Your task to perform on an android device: Search for Mexican restaurants on Maps Image 0: 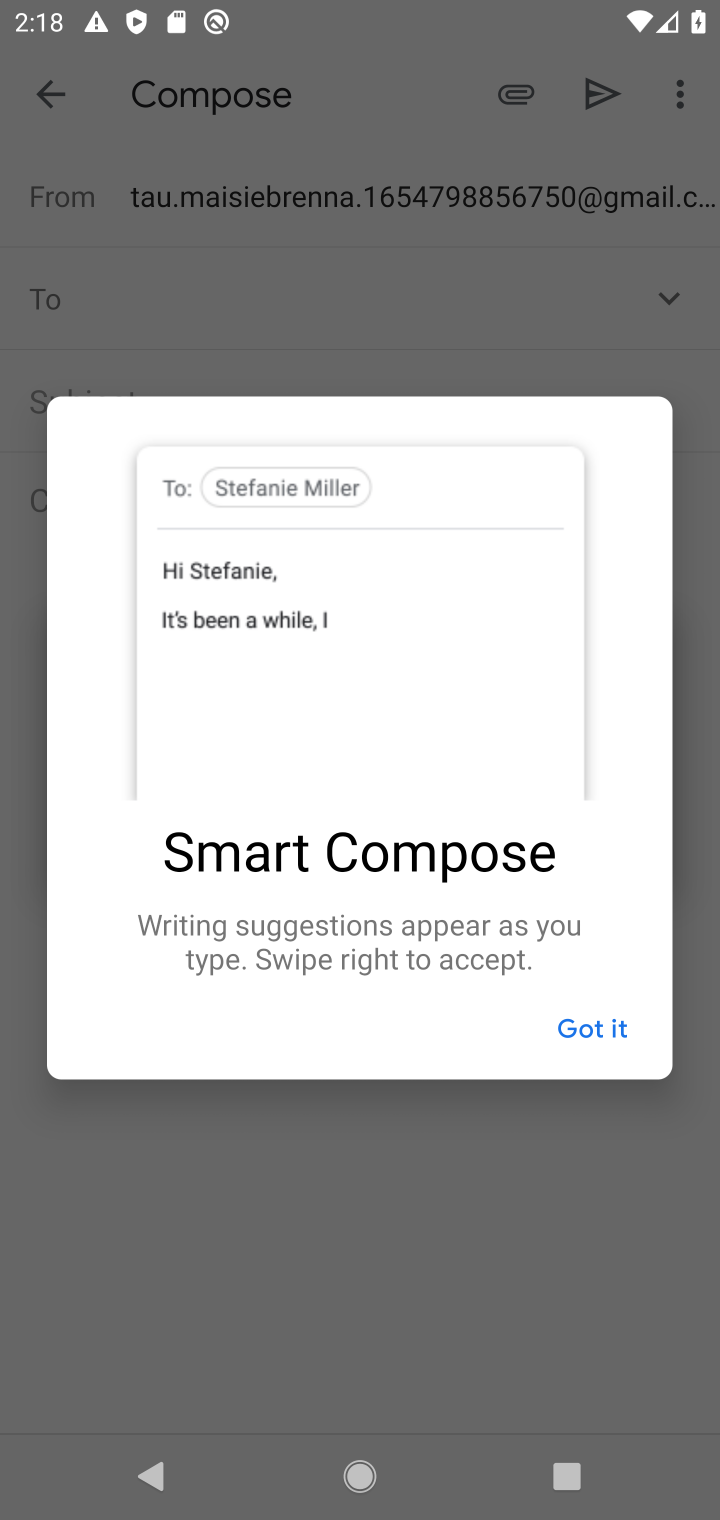
Step 0: press home button
Your task to perform on an android device: Search for Mexican restaurants on Maps Image 1: 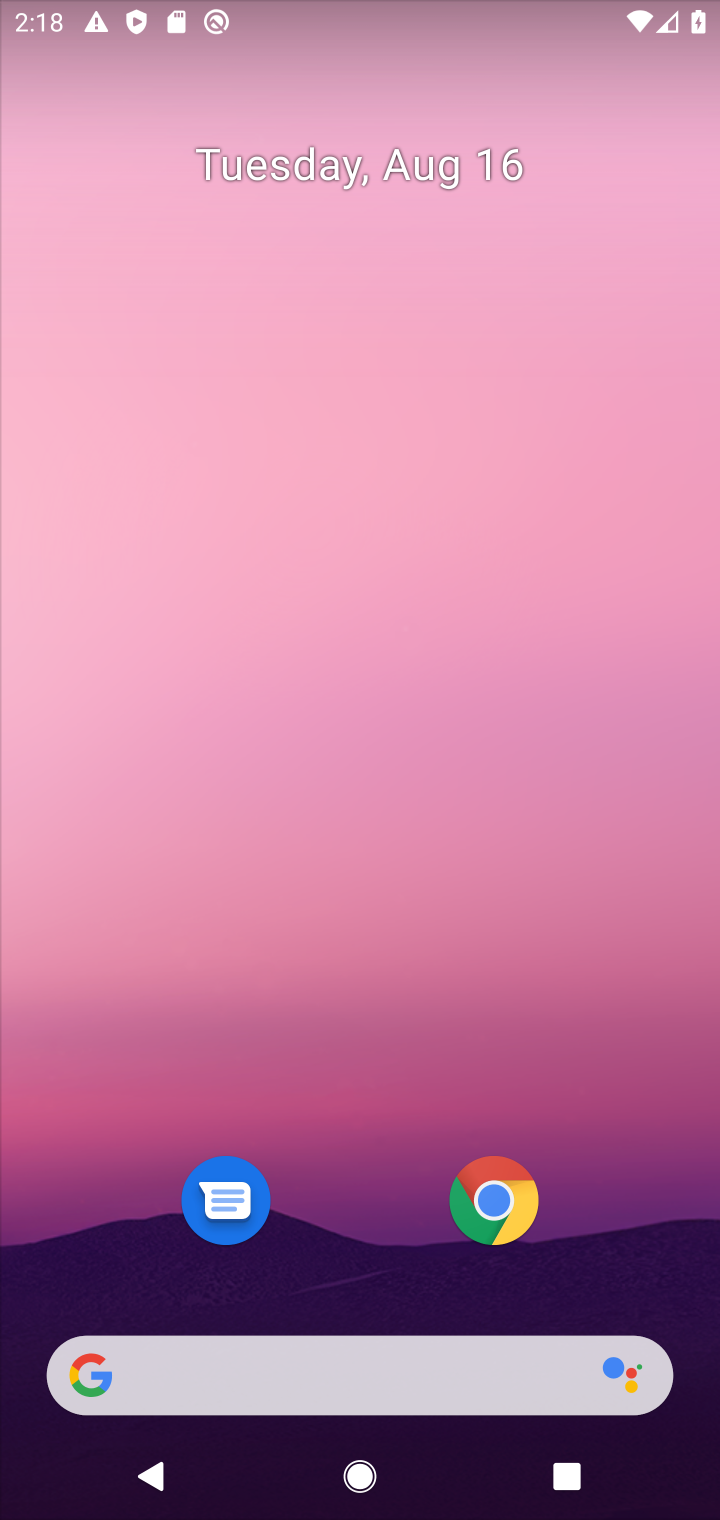
Step 1: task complete